Your task to perform on an android device: stop showing notifications on the lock screen Image 0: 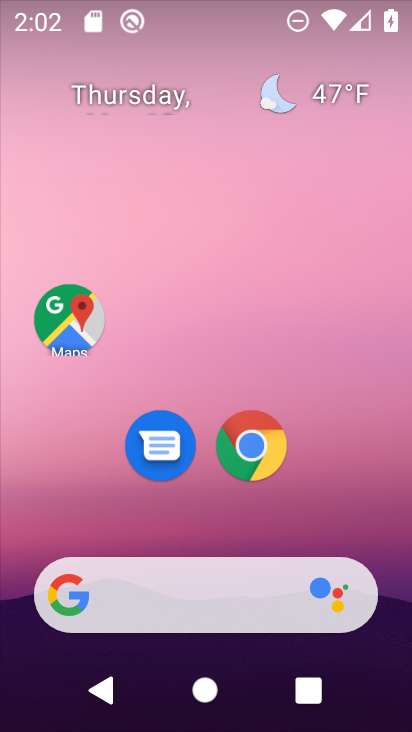
Step 0: drag from (205, 452) to (202, 207)
Your task to perform on an android device: stop showing notifications on the lock screen Image 1: 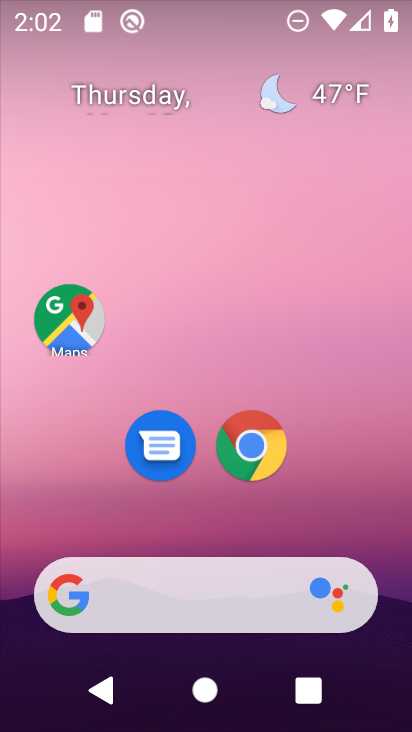
Step 1: drag from (213, 535) to (193, 83)
Your task to perform on an android device: stop showing notifications on the lock screen Image 2: 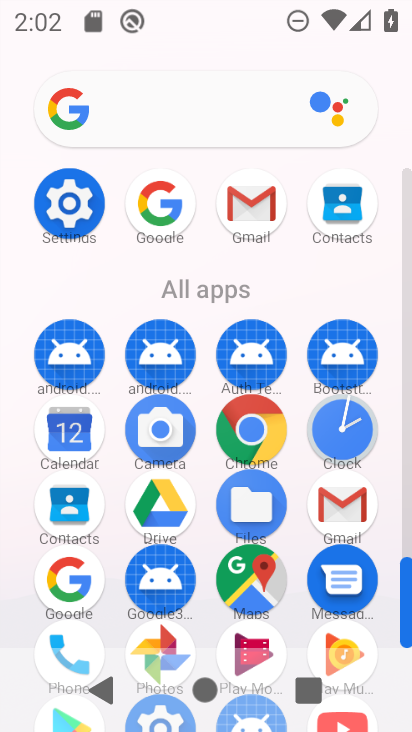
Step 2: click (77, 193)
Your task to perform on an android device: stop showing notifications on the lock screen Image 3: 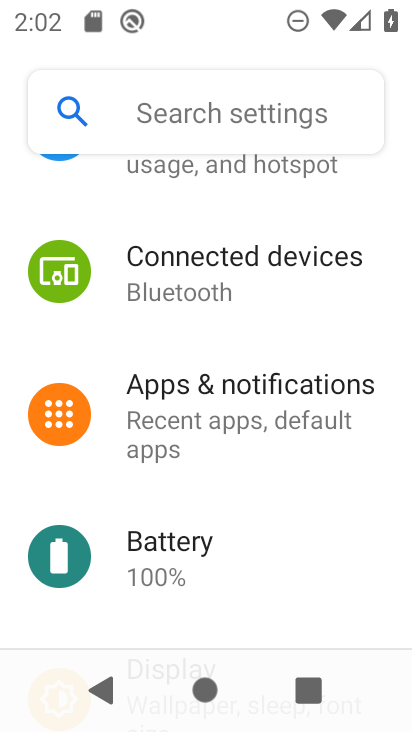
Step 3: drag from (241, 257) to (273, 476)
Your task to perform on an android device: stop showing notifications on the lock screen Image 4: 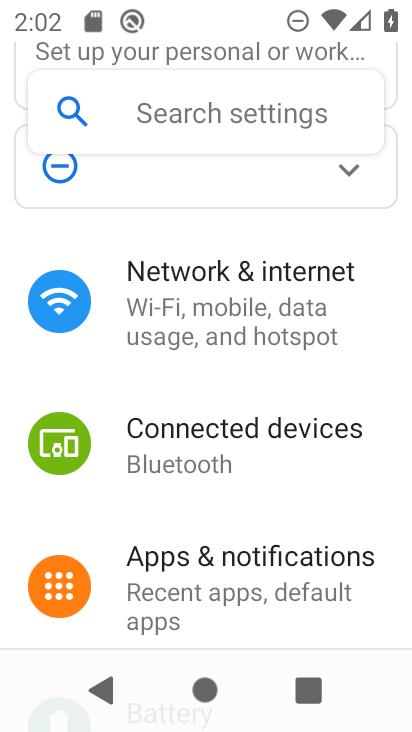
Step 4: click (274, 535)
Your task to perform on an android device: stop showing notifications on the lock screen Image 5: 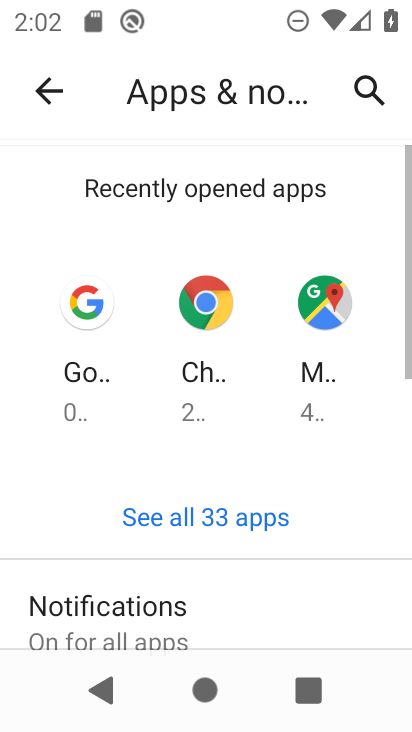
Step 5: drag from (238, 525) to (267, 287)
Your task to perform on an android device: stop showing notifications on the lock screen Image 6: 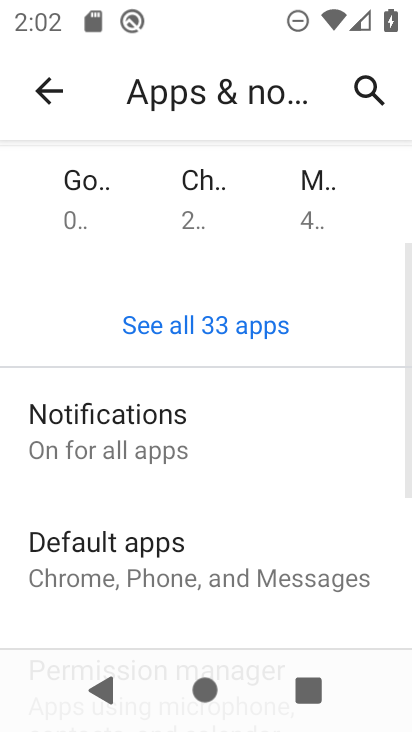
Step 6: click (245, 444)
Your task to perform on an android device: stop showing notifications on the lock screen Image 7: 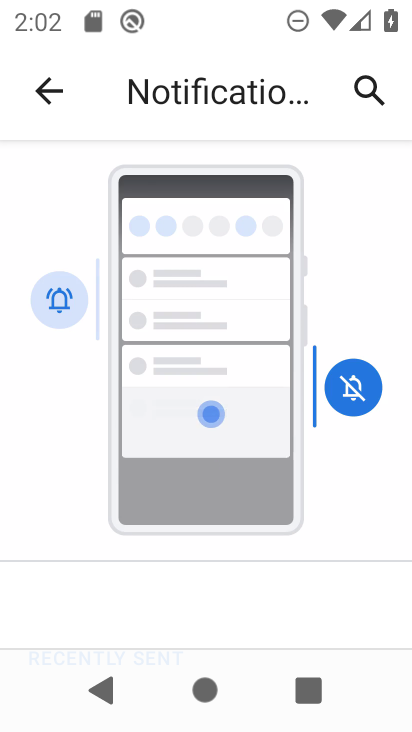
Step 7: drag from (258, 573) to (288, 299)
Your task to perform on an android device: stop showing notifications on the lock screen Image 8: 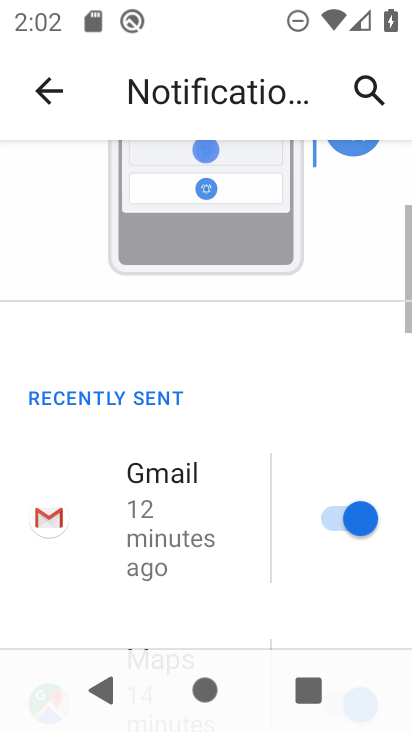
Step 8: drag from (277, 549) to (299, 356)
Your task to perform on an android device: stop showing notifications on the lock screen Image 9: 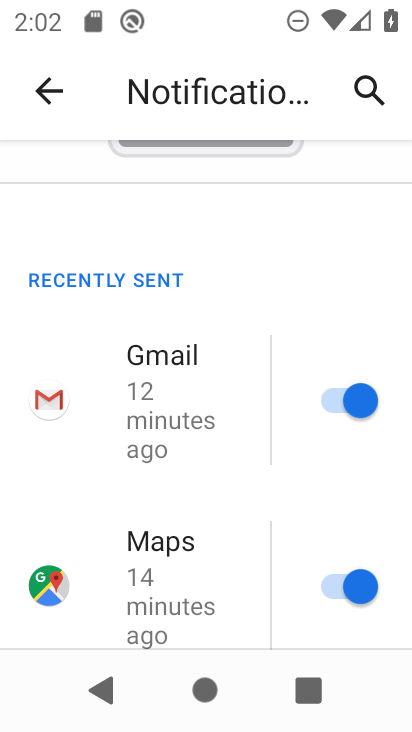
Step 9: drag from (209, 537) to (259, 307)
Your task to perform on an android device: stop showing notifications on the lock screen Image 10: 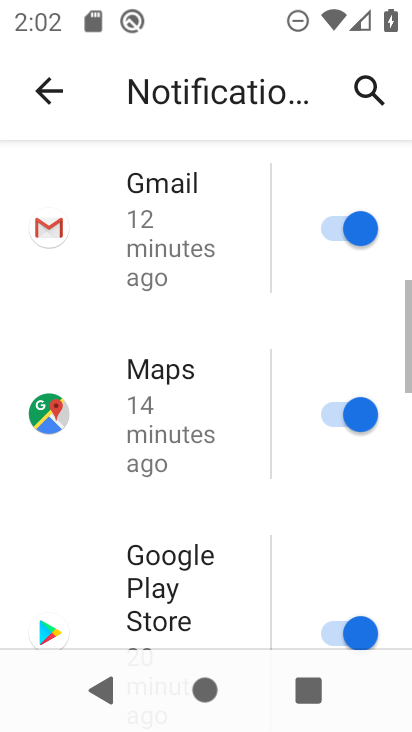
Step 10: drag from (229, 551) to (252, 366)
Your task to perform on an android device: stop showing notifications on the lock screen Image 11: 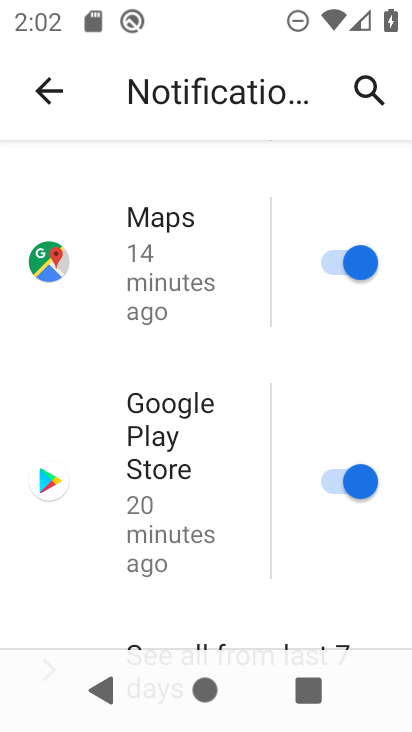
Step 11: drag from (218, 614) to (267, 336)
Your task to perform on an android device: stop showing notifications on the lock screen Image 12: 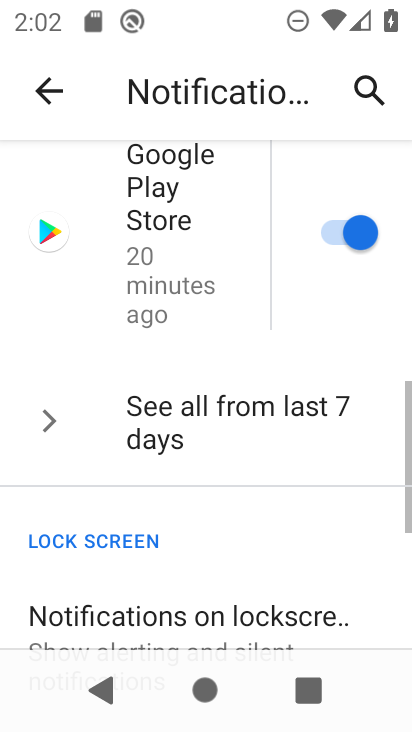
Step 12: drag from (243, 567) to (270, 415)
Your task to perform on an android device: stop showing notifications on the lock screen Image 13: 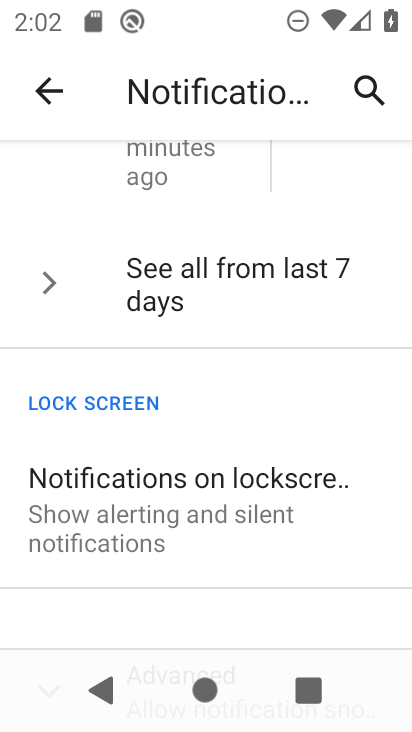
Step 13: drag from (270, 521) to (284, 380)
Your task to perform on an android device: stop showing notifications on the lock screen Image 14: 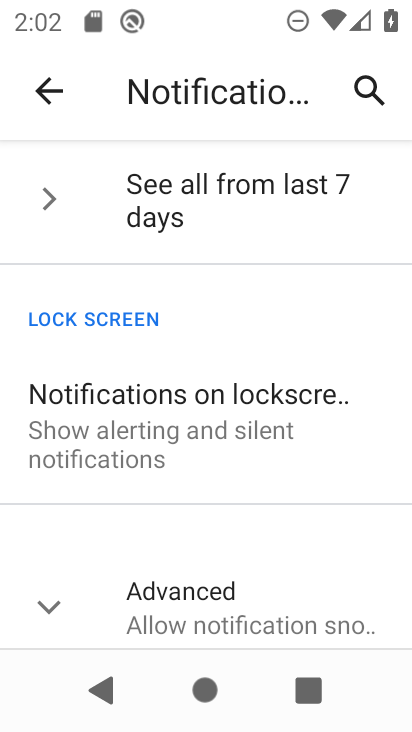
Step 14: drag from (276, 583) to (283, 357)
Your task to perform on an android device: stop showing notifications on the lock screen Image 15: 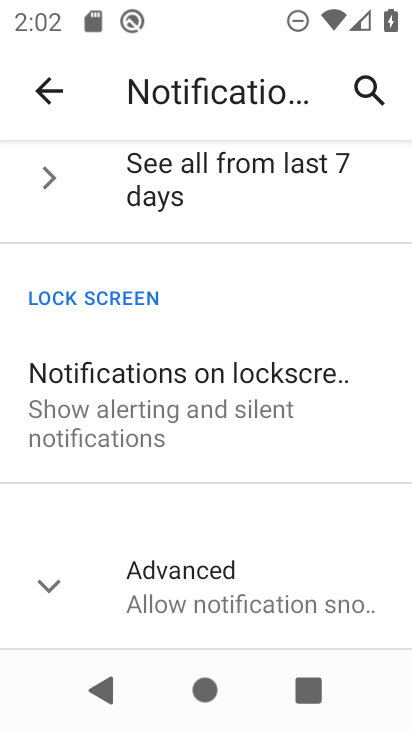
Step 15: click (236, 426)
Your task to perform on an android device: stop showing notifications on the lock screen Image 16: 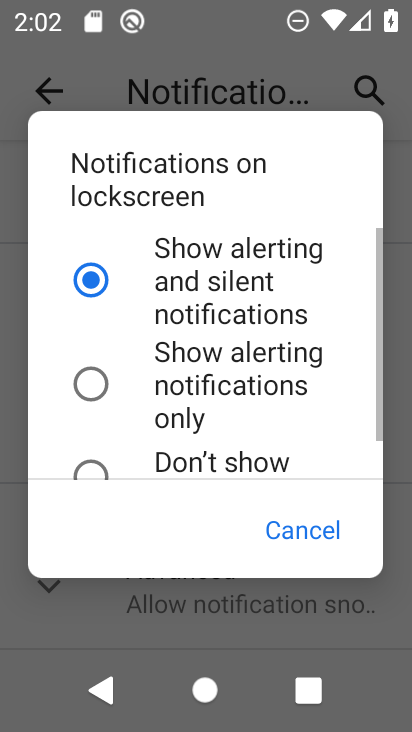
Step 16: click (158, 460)
Your task to perform on an android device: stop showing notifications on the lock screen Image 17: 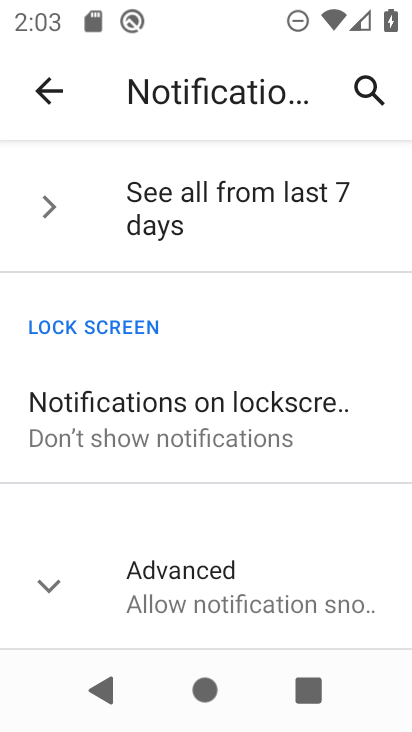
Step 17: task complete